Your task to perform on an android device: Search for a nightstand on IKEA. Image 0: 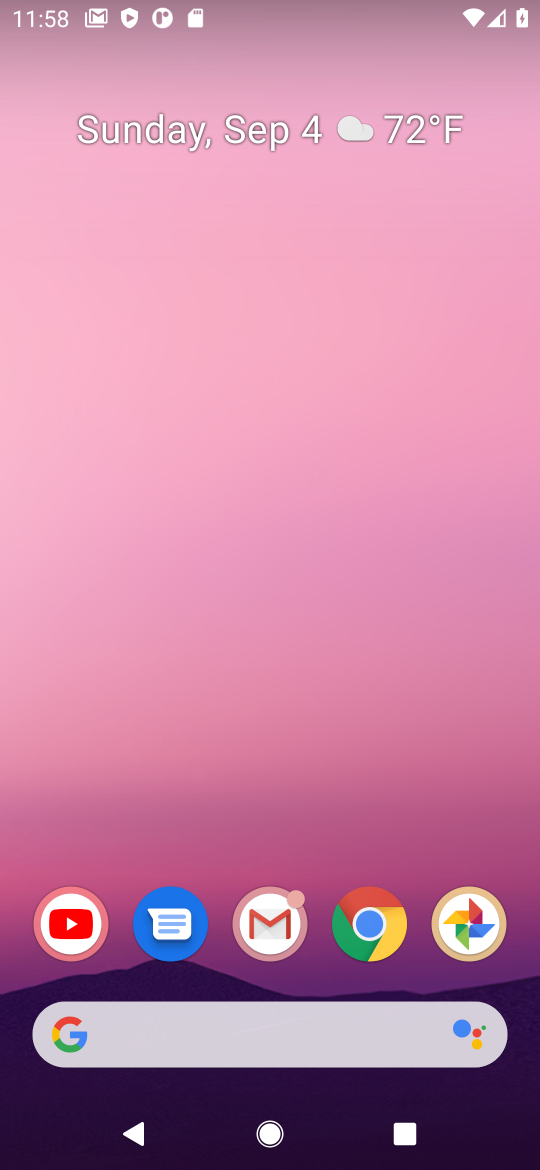
Step 0: press home button
Your task to perform on an android device: Search for a nightstand on IKEA. Image 1: 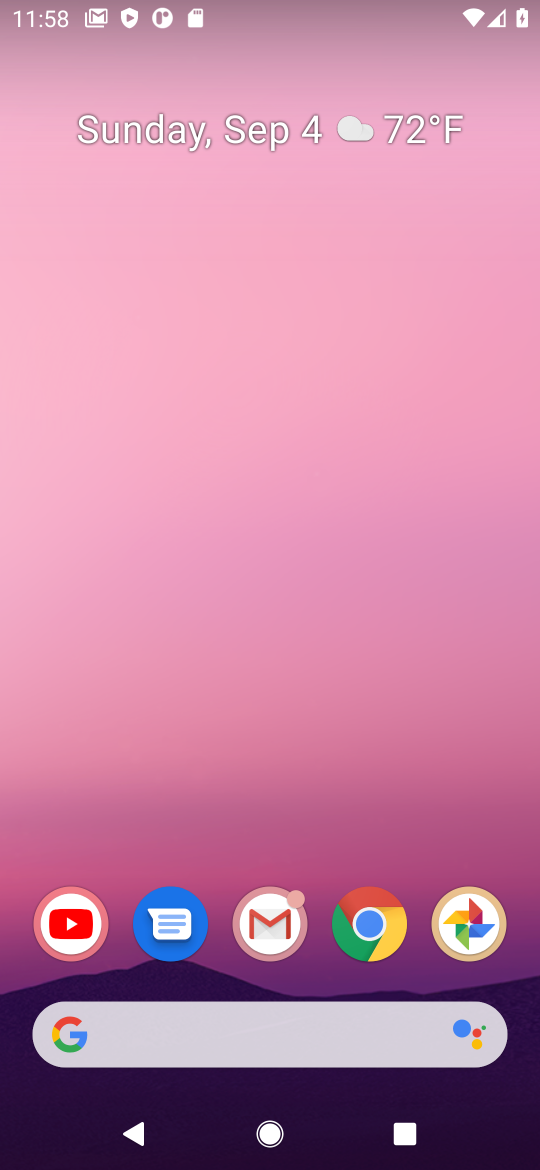
Step 1: drag from (303, 874) to (338, 96)
Your task to perform on an android device: Search for a nightstand on IKEA. Image 2: 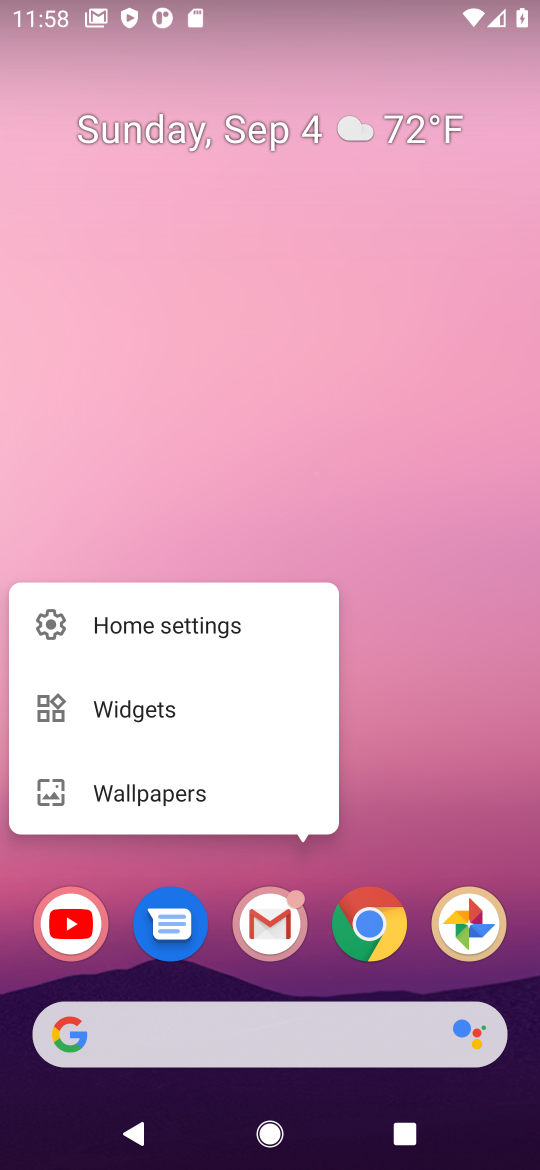
Step 2: click (481, 791)
Your task to perform on an android device: Search for a nightstand on IKEA. Image 3: 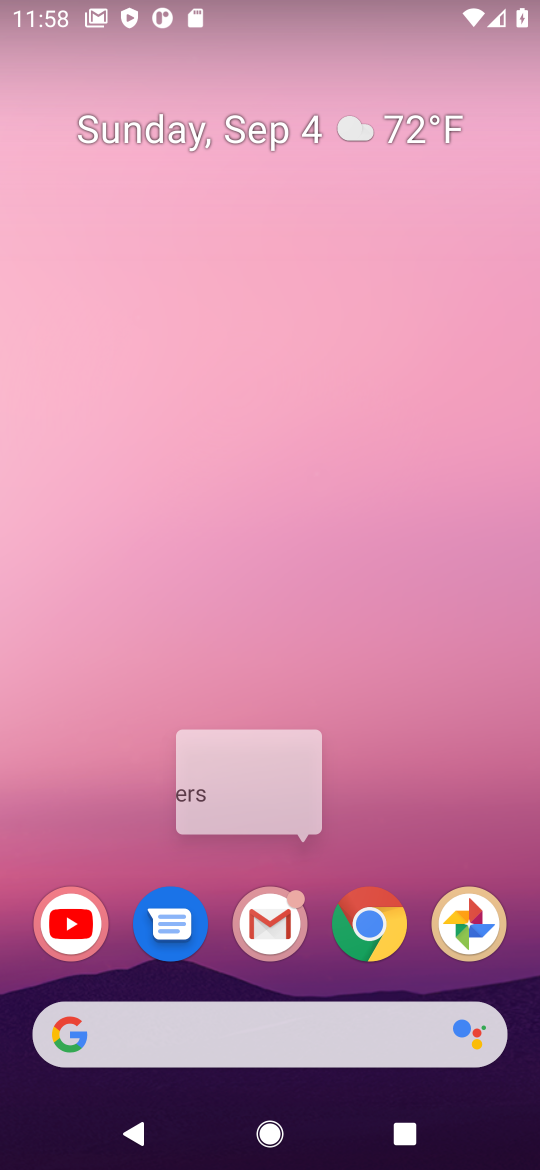
Step 3: drag from (426, 795) to (444, 164)
Your task to perform on an android device: Search for a nightstand on IKEA. Image 4: 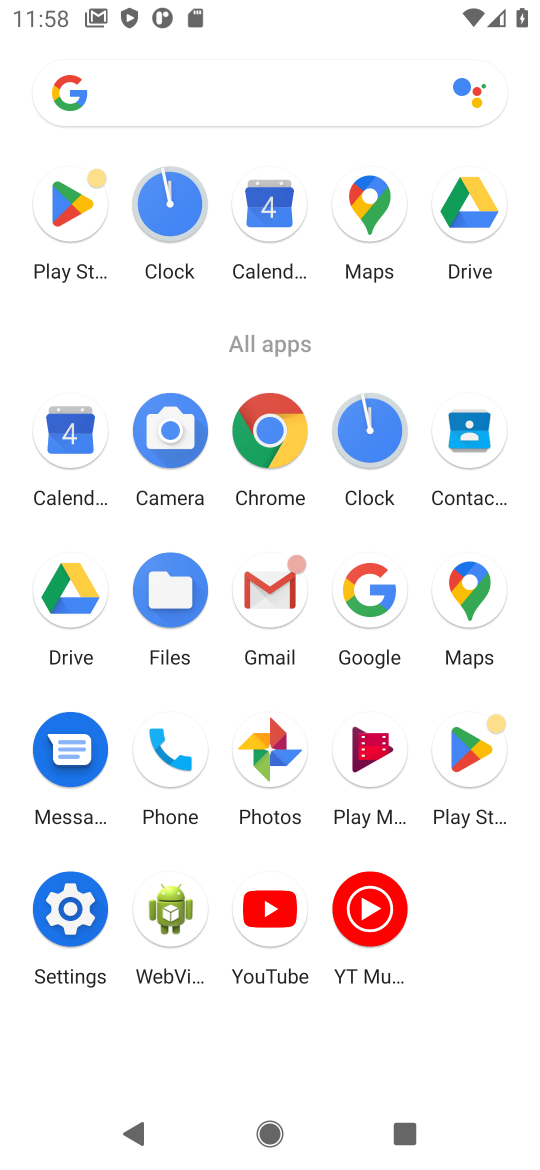
Step 4: click (268, 423)
Your task to perform on an android device: Search for a nightstand on IKEA. Image 5: 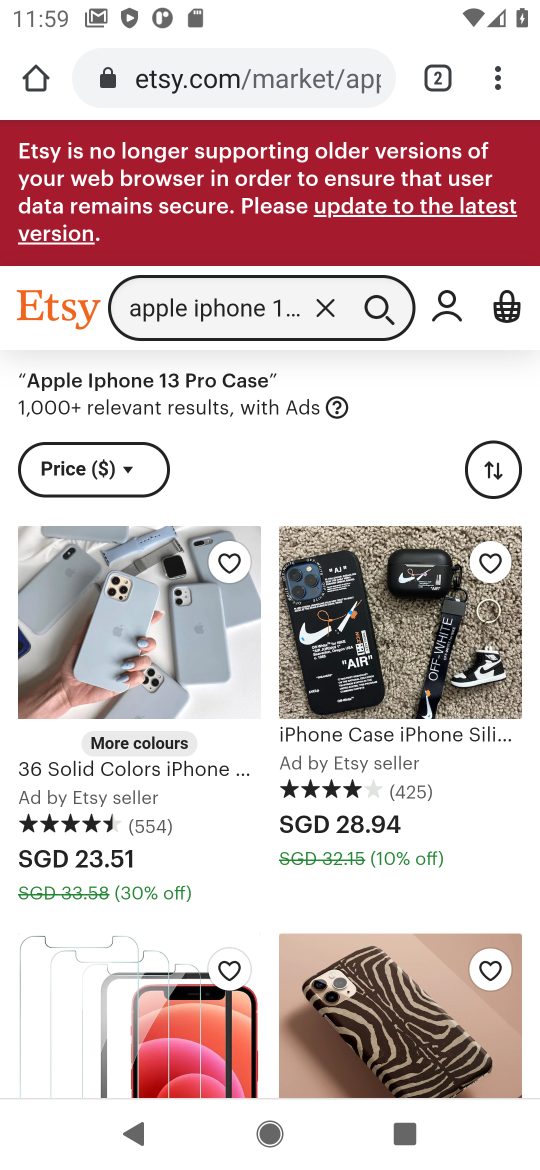
Step 5: click (436, 70)
Your task to perform on an android device: Search for a nightstand on IKEA. Image 6: 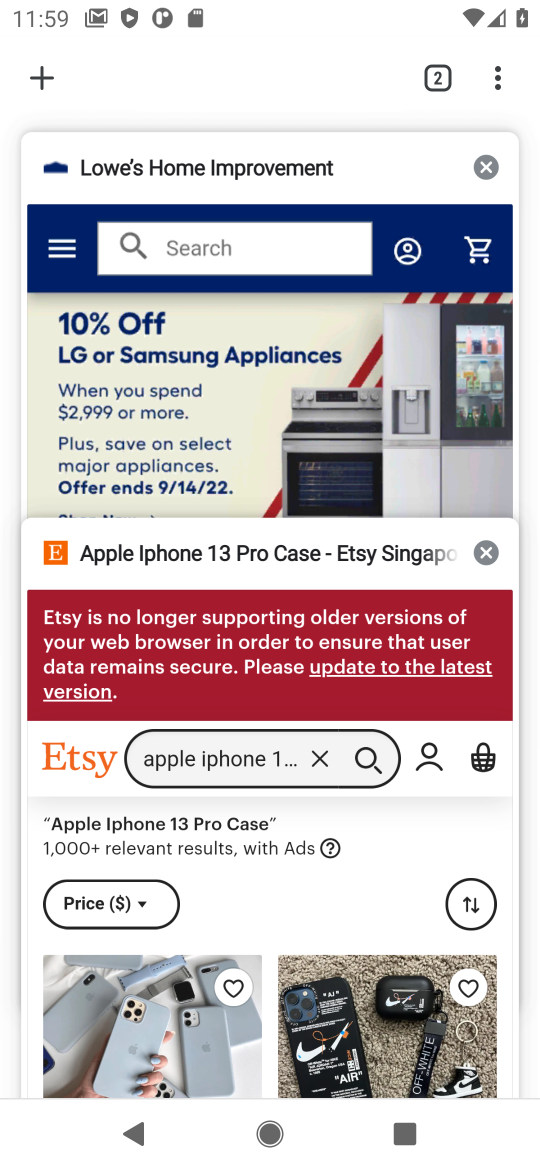
Step 6: click (480, 164)
Your task to perform on an android device: Search for a nightstand on IKEA. Image 7: 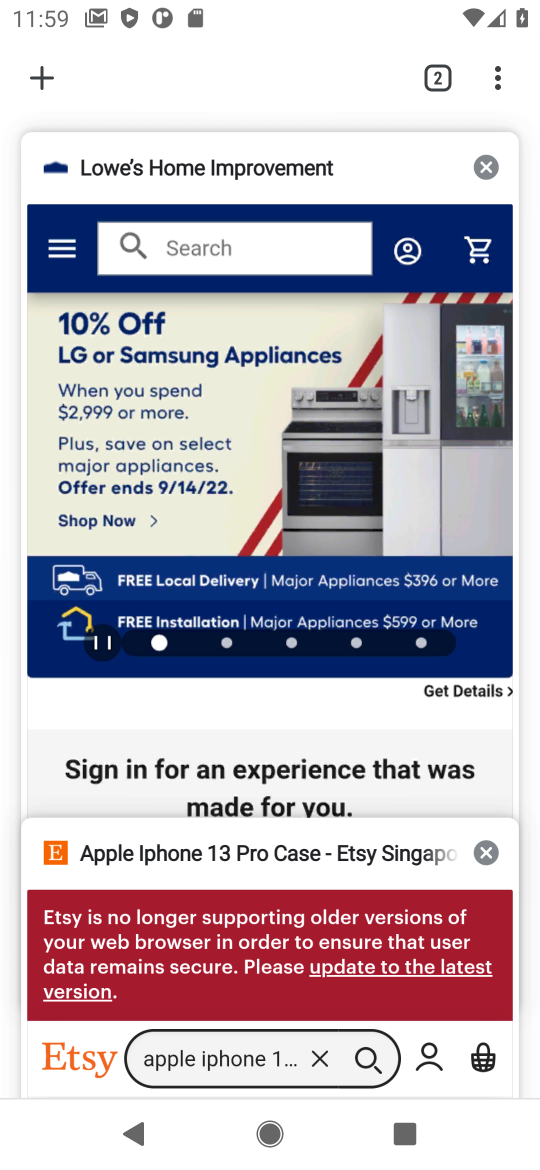
Step 7: click (480, 164)
Your task to perform on an android device: Search for a nightstand on IKEA. Image 8: 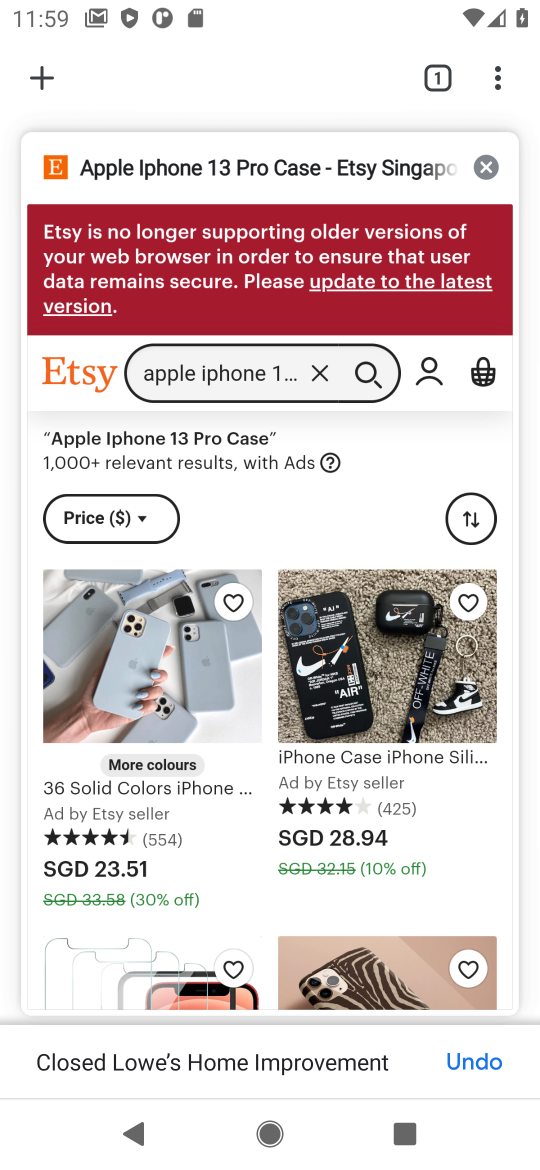
Step 8: click (483, 167)
Your task to perform on an android device: Search for a nightstand on IKEA. Image 9: 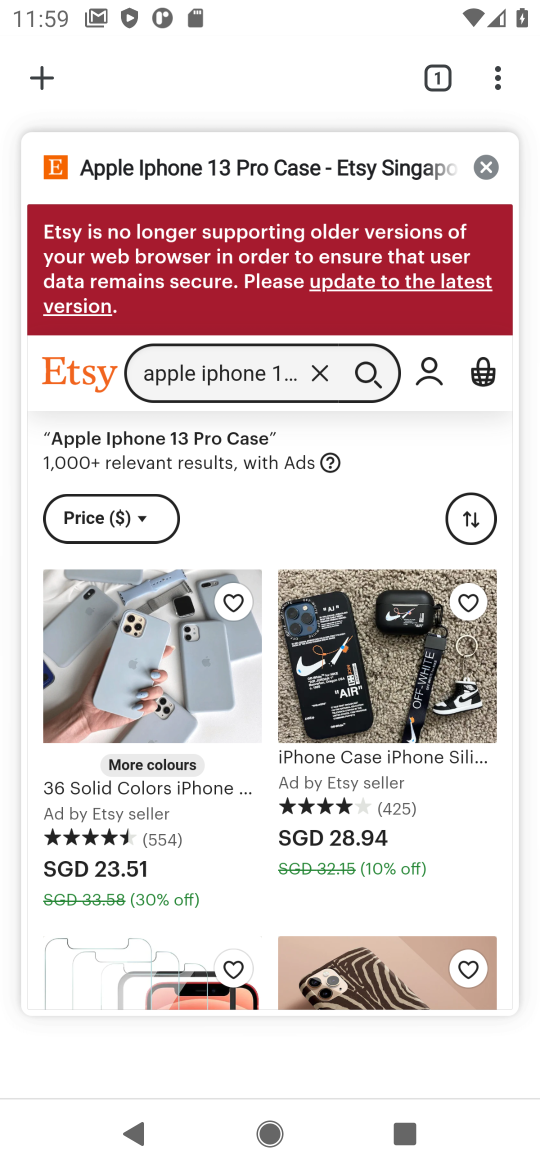
Step 9: click (484, 161)
Your task to perform on an android device: Search for a nightstand on IKEA. Image 10: 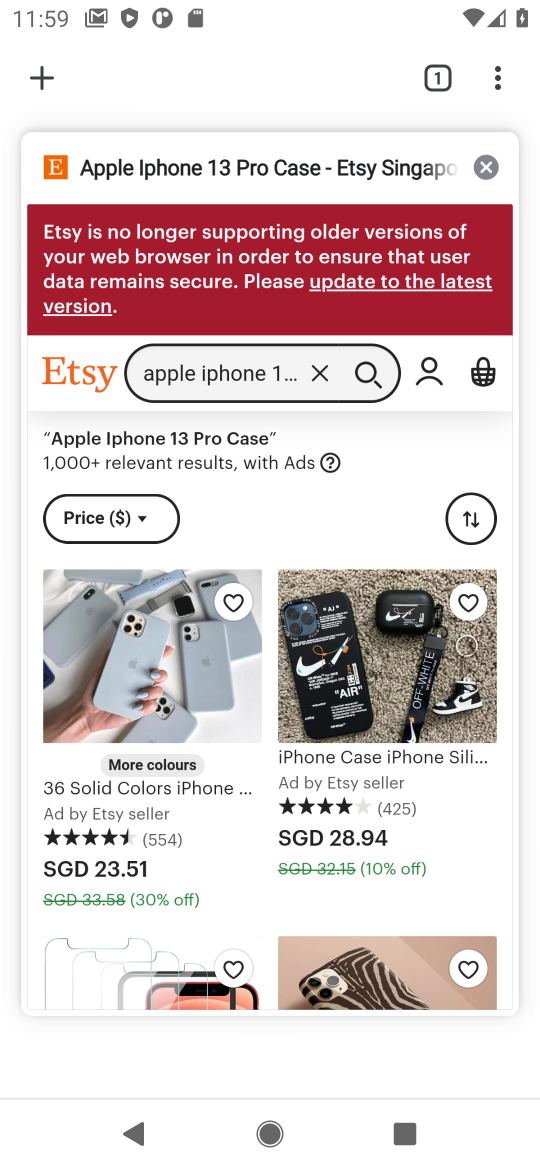
Step 10: click (482, 164)
Your task to perform on an android device: Search for a nightstand on IKEA. Image 11: 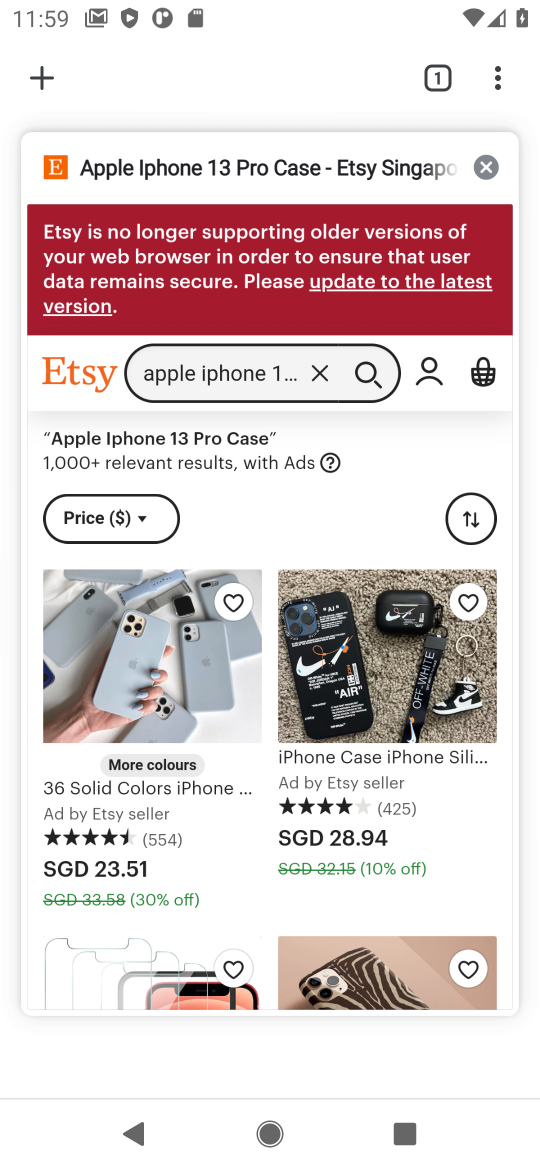
Step 11: click (482, 164)
Your task to perform on an android device: Search for a nightstand on IKEA. Image 12: 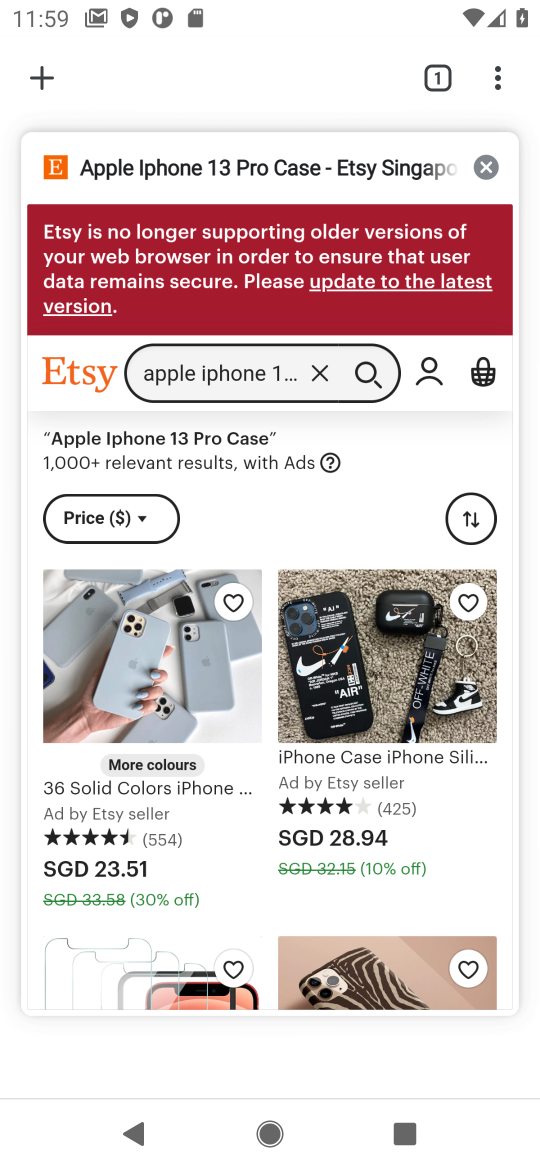
Step 12: click (44, 73)
Your task to perform on an android device: Search for a nightstand on IKEA. Image 13: 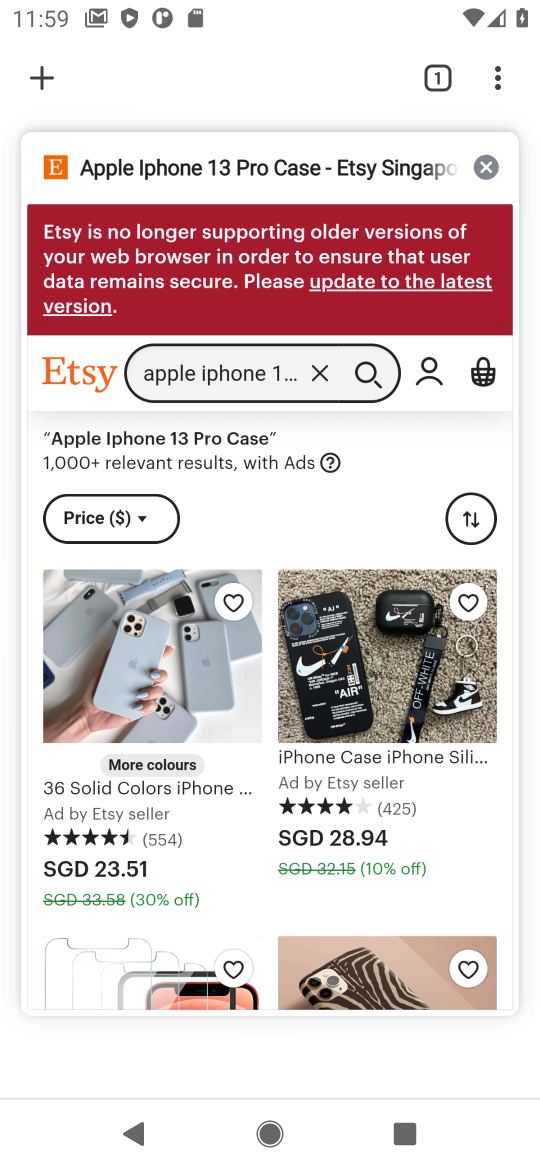
Step 13: click (45, 77)
Your task to perform on an android device: Search for a nightstand on IKEA. Image 14: 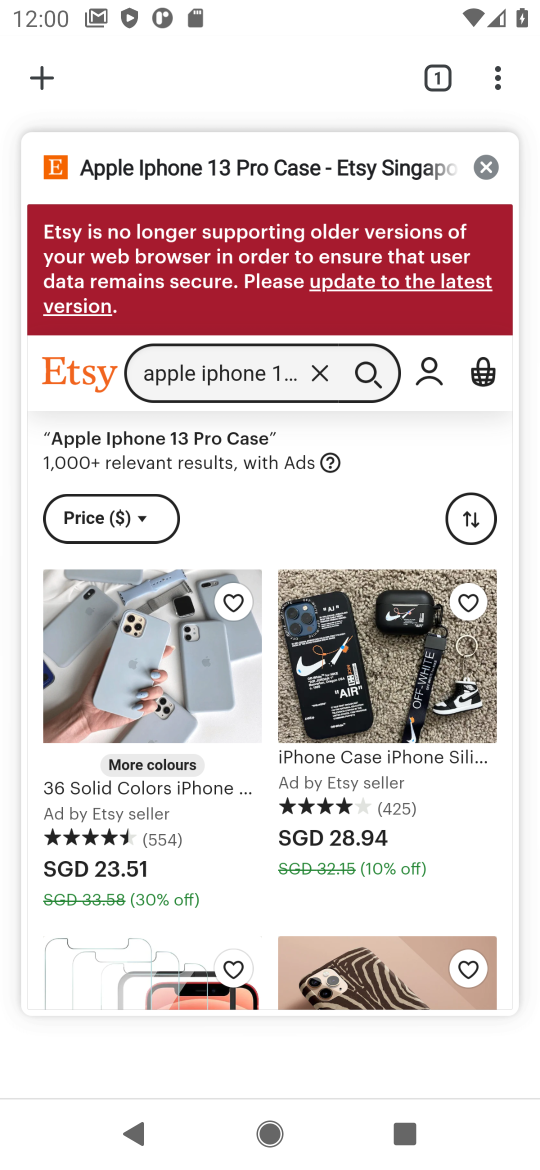
Step 14: click (52, 83)
Your task to perform on an android device: Search for a nightstand on IKEA. Image 15: 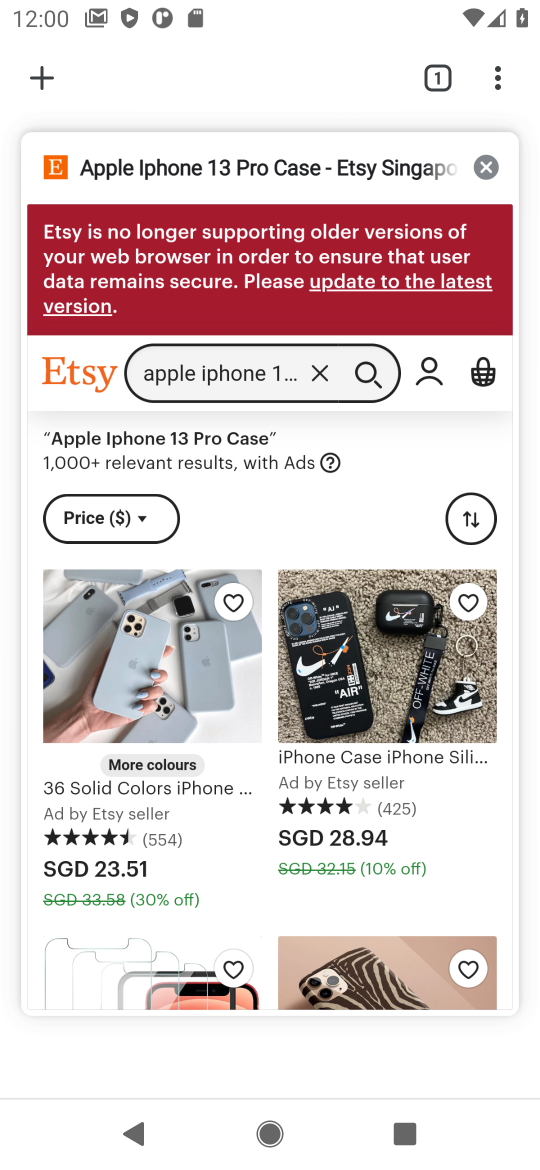
Step 15: click (41, 74)
Your task to perform on an android device: Search for a nightstand on IKEA. Image 16: 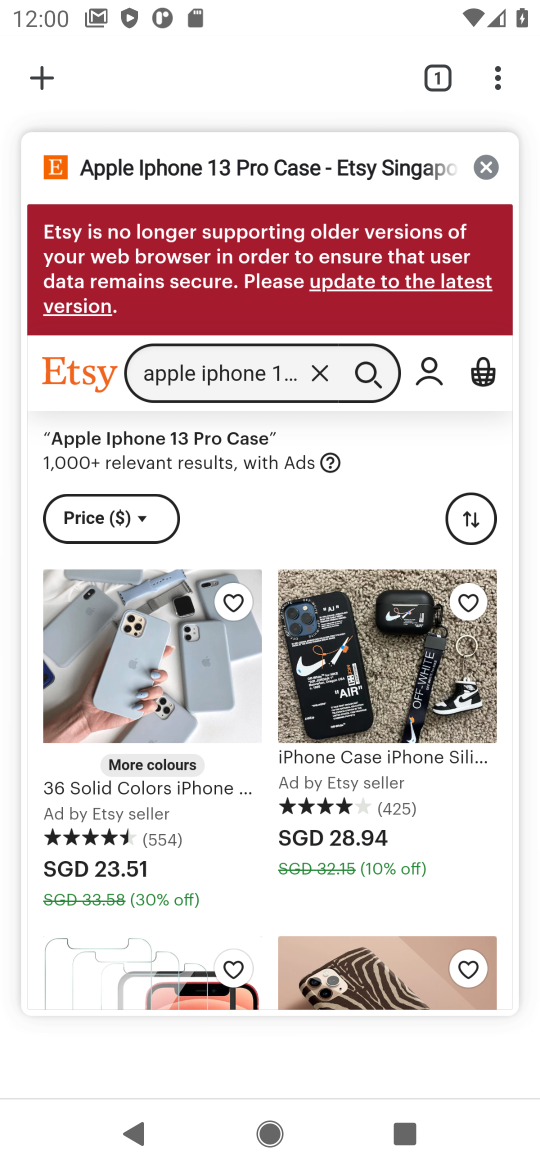
Step 16: click (44, 79)
Your task to perform on an android device: Search for a nightstand on IKEA. Image 17: 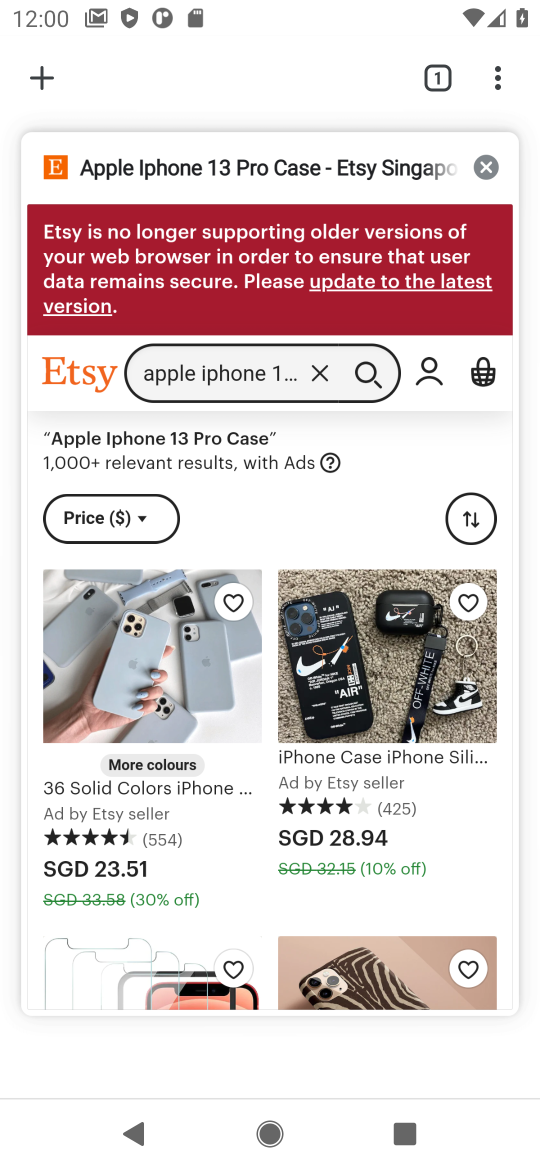
Step 17: click (44, 79)
Your task to perform on an android device: Search for a nightstand on IKEA. Image 18: 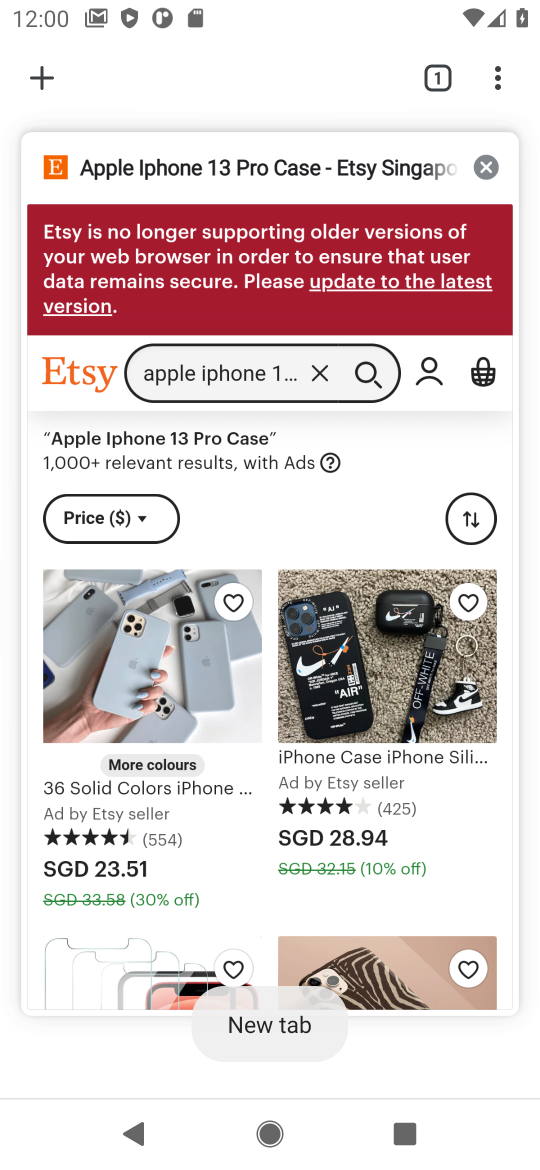
Step 18: press back button
Your task to perform on an android device: Search for a nightstand on IKEA. Image 19: 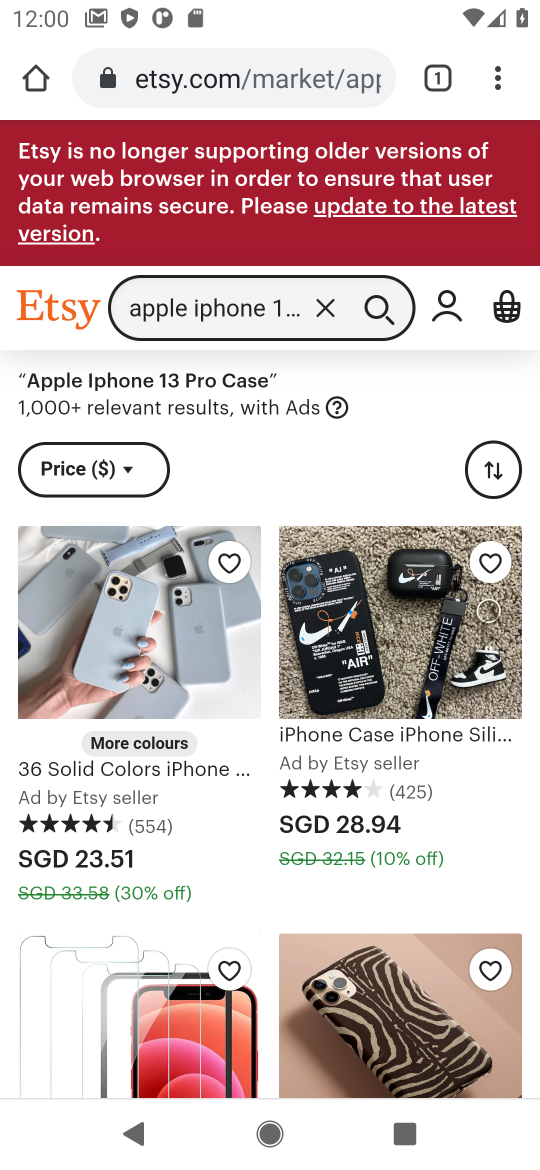
Step 19: press back button
Your task to perform on an android device: Search for a nightstand on IKEA. Image 20: 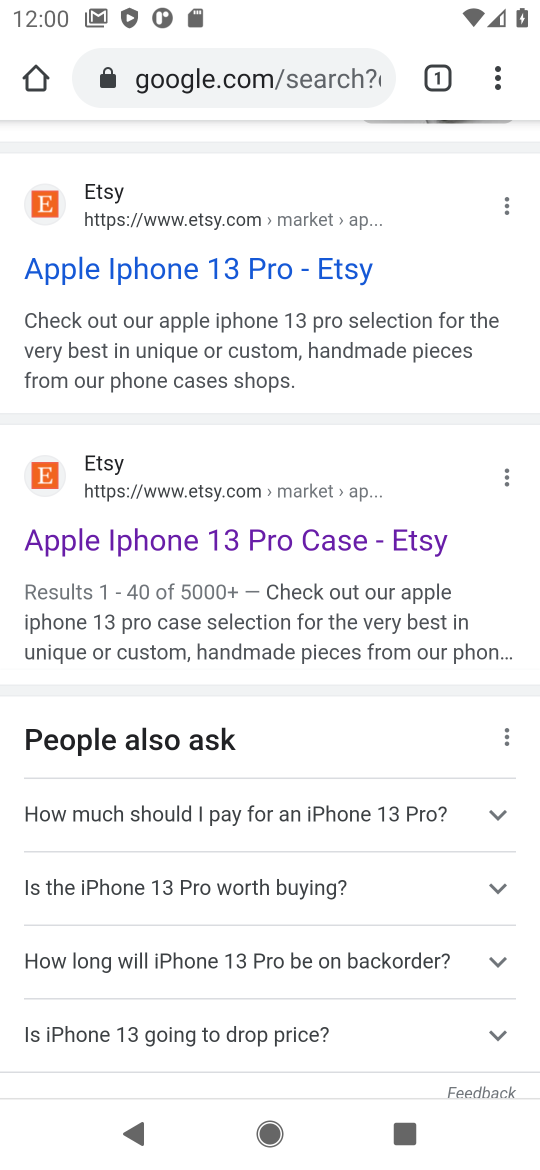
Step 20: press back button
Your task to perform on an android device: Search for a nightstand on IKEA. Image 21: 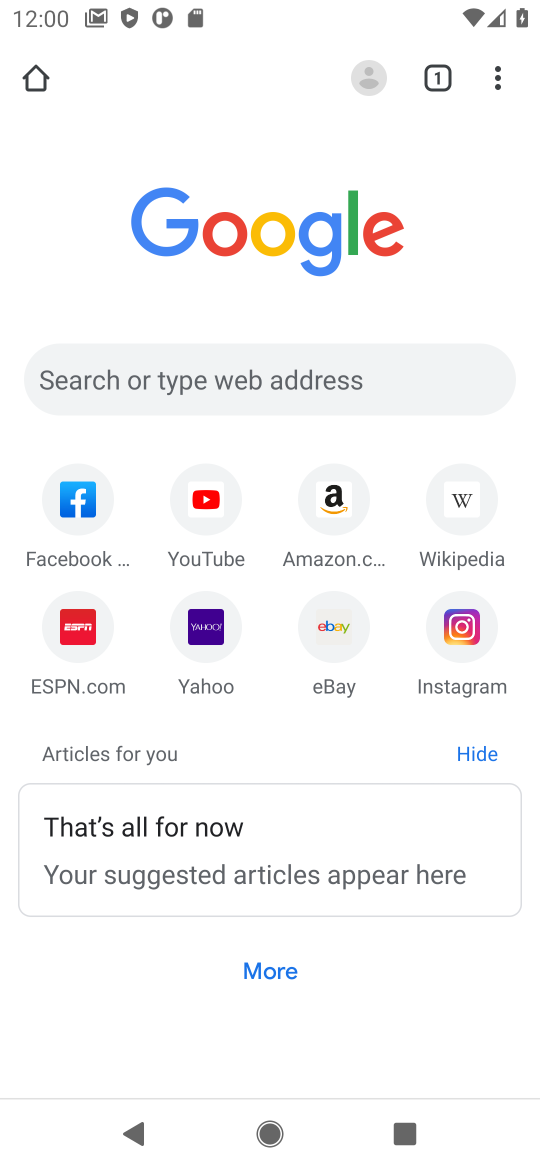
Step 21: click (284, 371)
Your task to perform on an android device: Search for a nightstand on IKEA. Image 22: 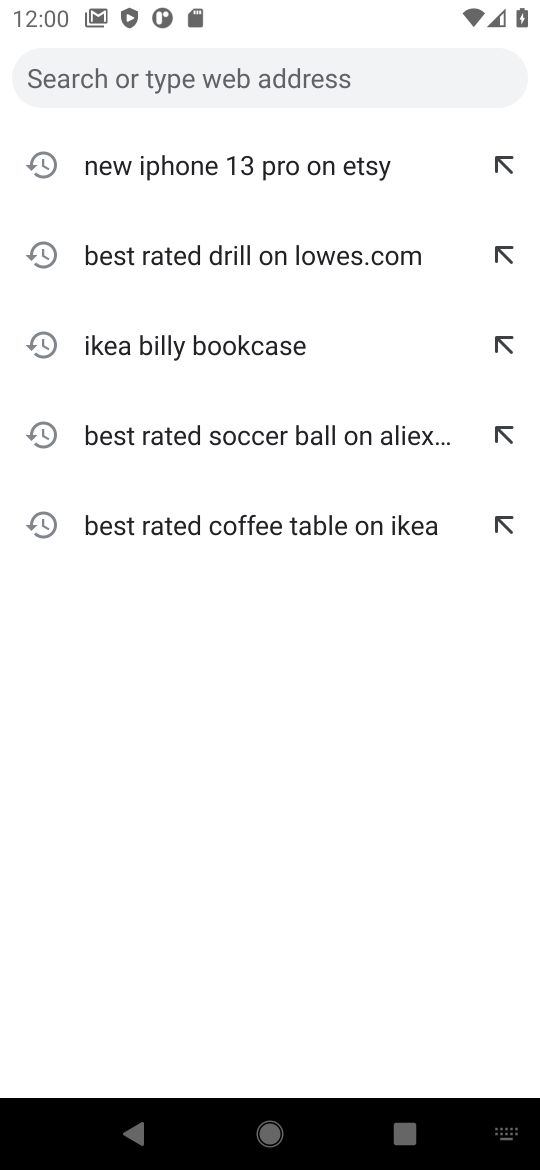
Step 22: type "nightstand on IKEA"
Your task to perform on an android device: Search for a nightstand on IKEA. Image 23: 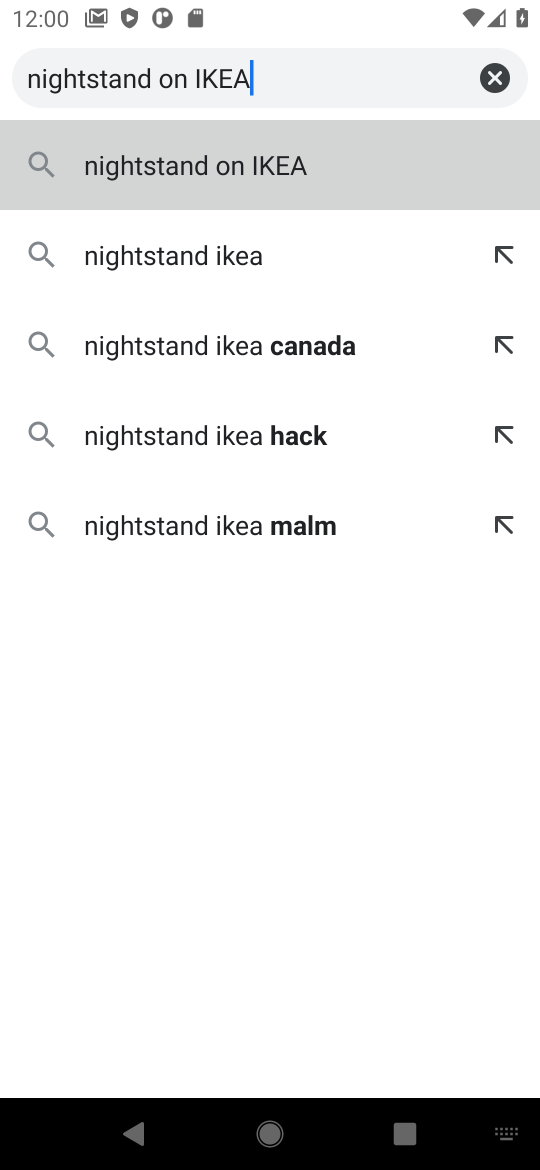
Step 23: click (256, 152)
Your task to perform on an android device: Search for a nightstand on IKEA. Image 24: 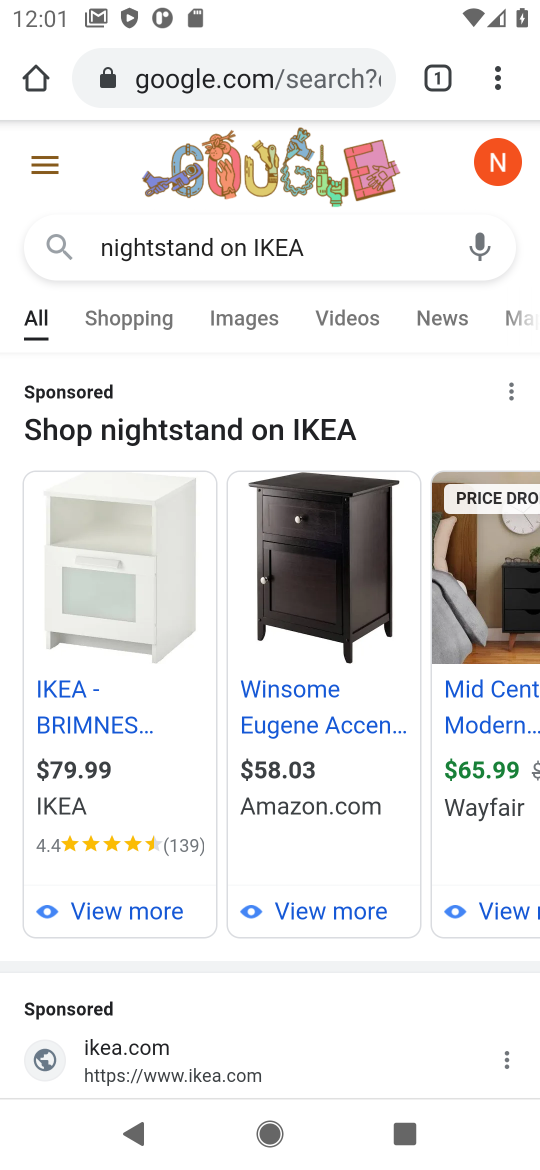
Step 24: drag from (305, 987) to (349, 165)
Your task to perform on an android device: Search for a nightstand on IKEA. Image 25: 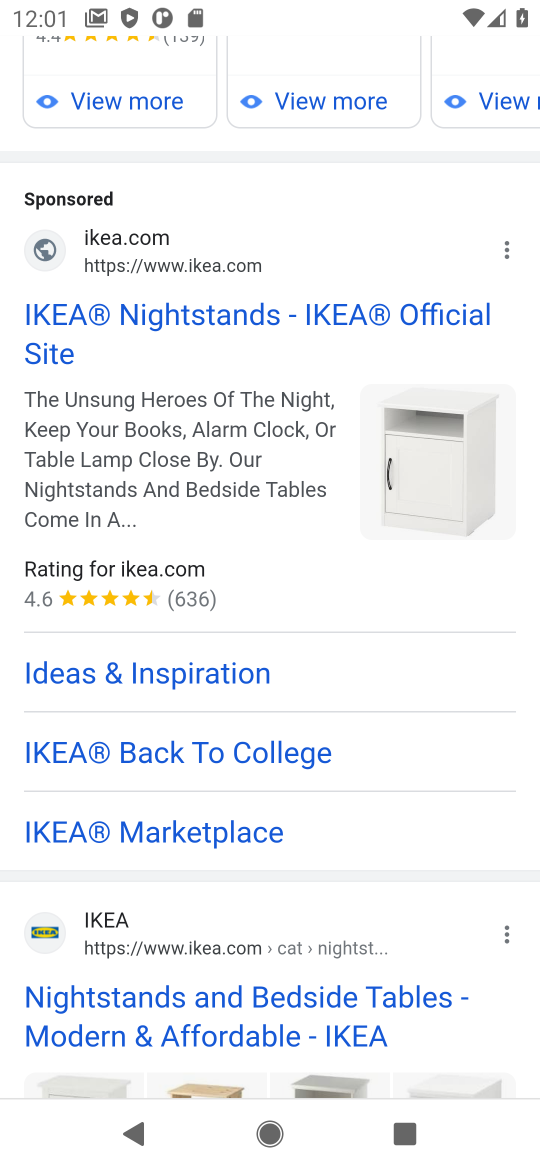
Step 25: click (190, 313)
Your task to perform on an android device: Search for a nightstand on IKEA. Image 26: 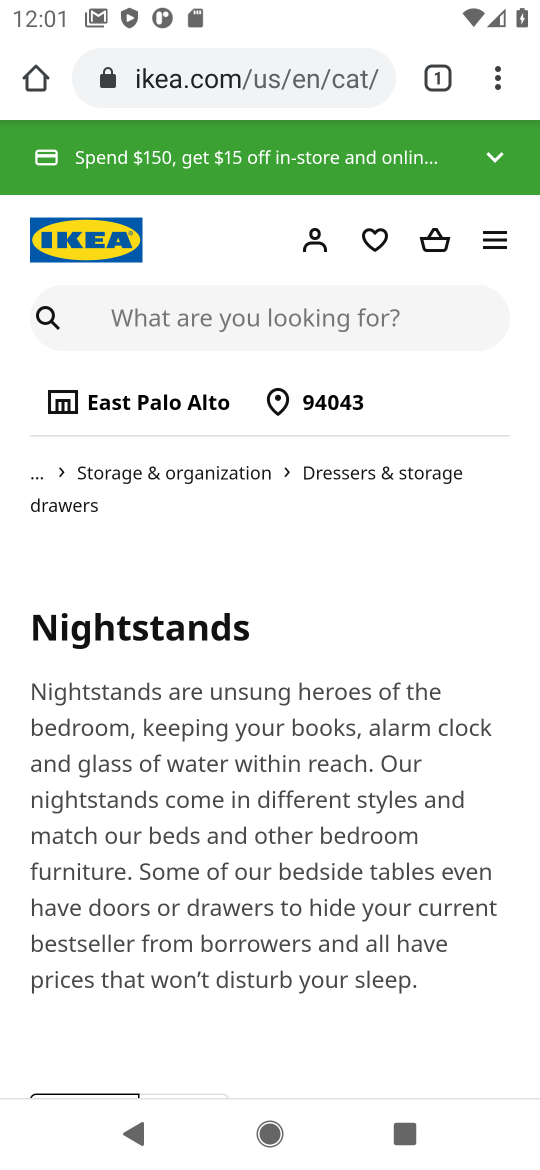
Step 26: task complete